Your task to perform on an android device: Open Wikipedia Image 0: 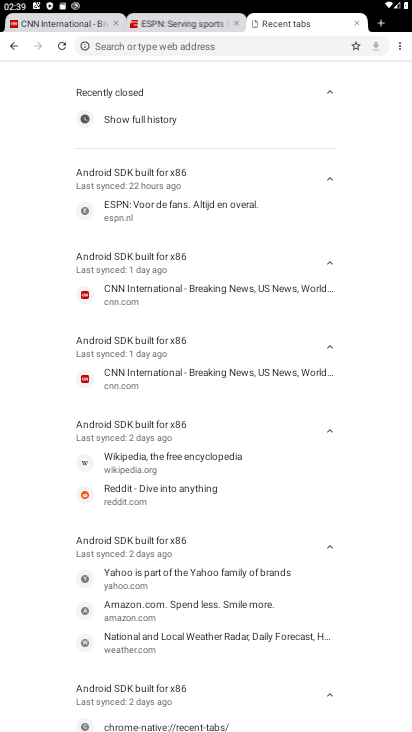
Step 0: press home button
Your task to perform on an android device: Open Wikipedia Image 1: 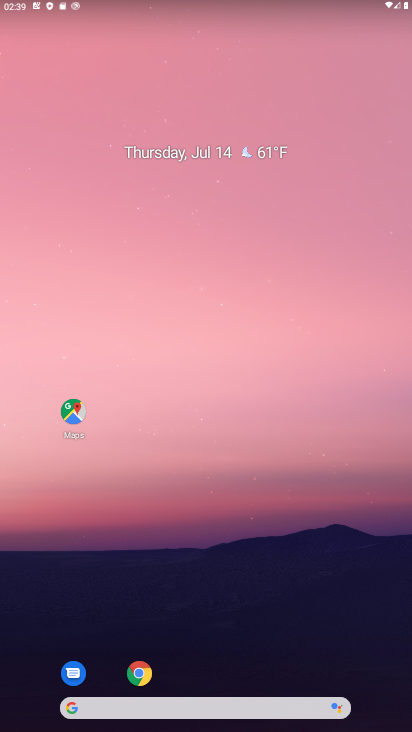
Step 1: drag from (269, 619) to (292, 93)
Your task to perform on an android device: Open Wikipedia Image 2: 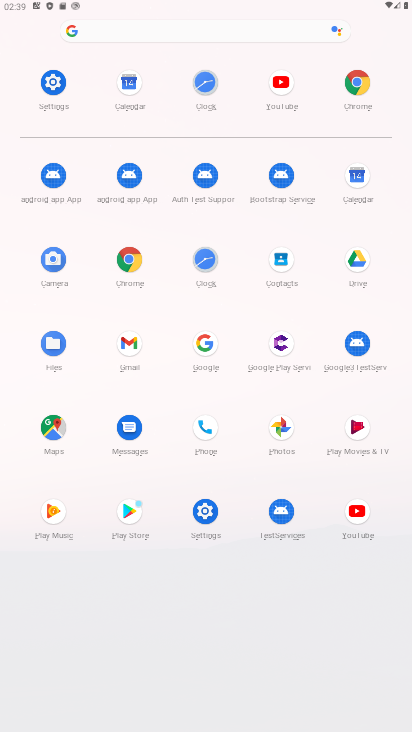
Step 2: click (231, 32)
Your task to perform on an android device: Open Wikipedia Image 3: 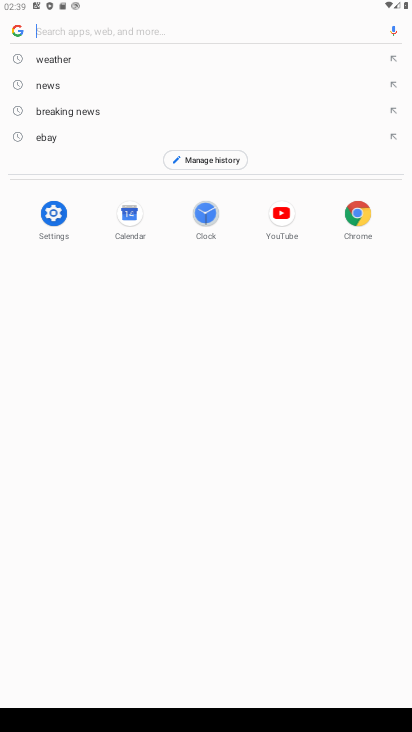
Step 3: type "wikipedia"
Your task to perform on an android device: Open Wikipedia Image 4: 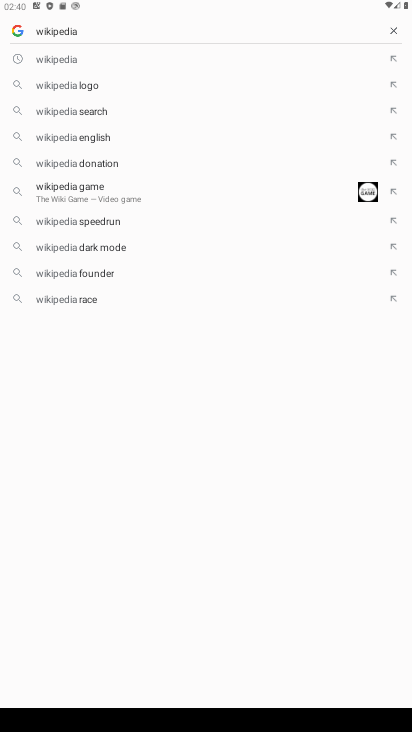
Step 4: click (62, 58)
Your task to perform on an android device: Open Wikipedia Image 5: 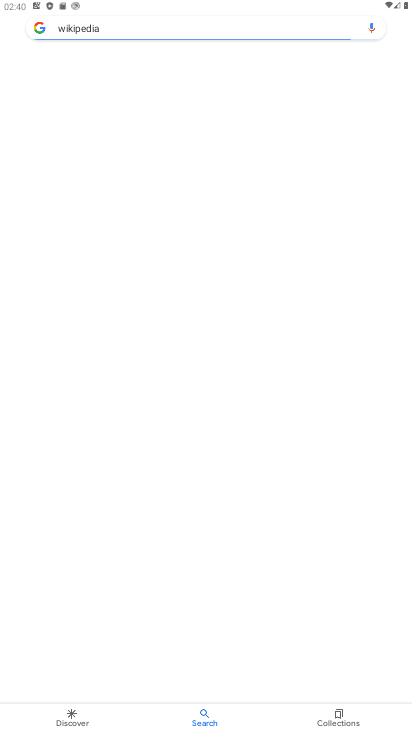
Step 5: task complete